Your task to perform on an android device: Open the calendar and show me this week's events? Image 0: 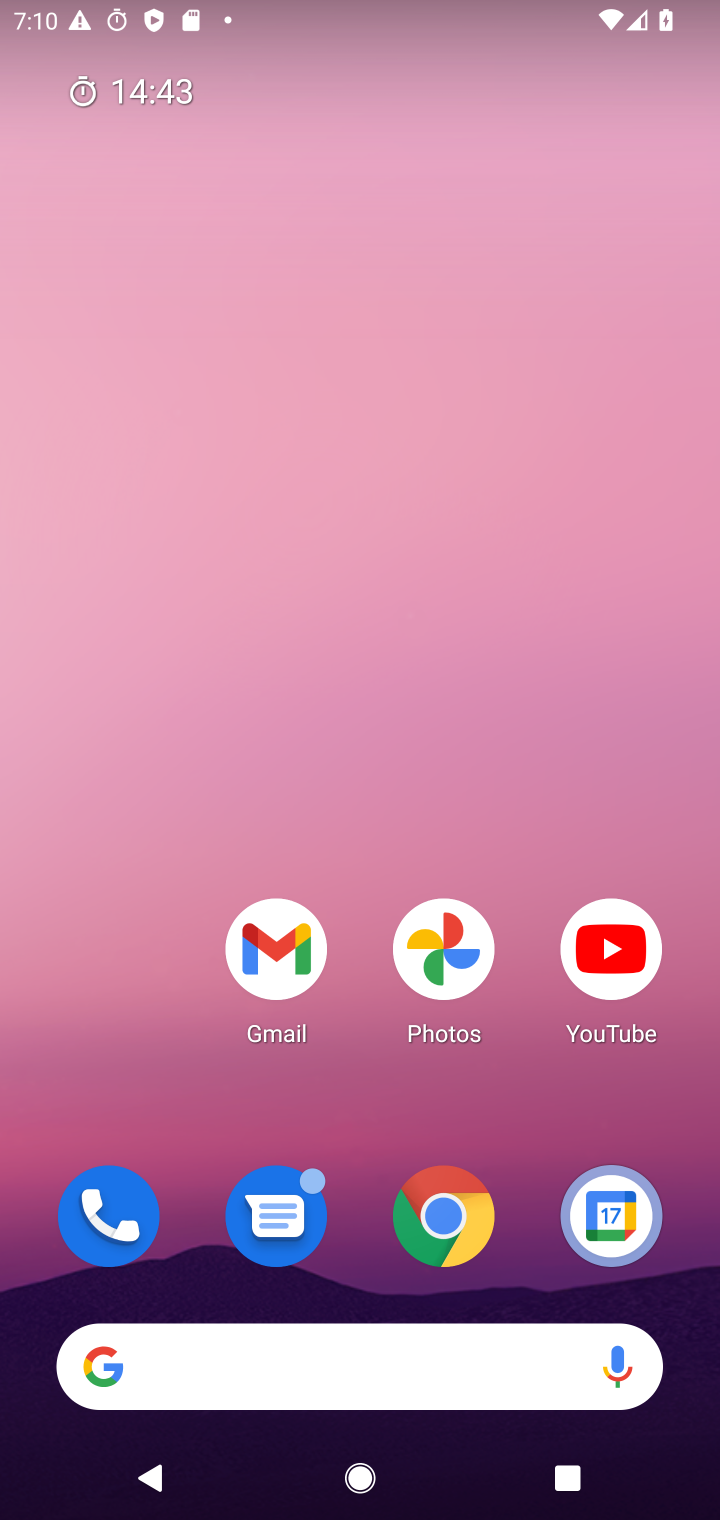
Step 0: drag from (474, 859) to (510, 24)
Your task to perform on an android device: Open the calendar and show me this week's events? Image 1: 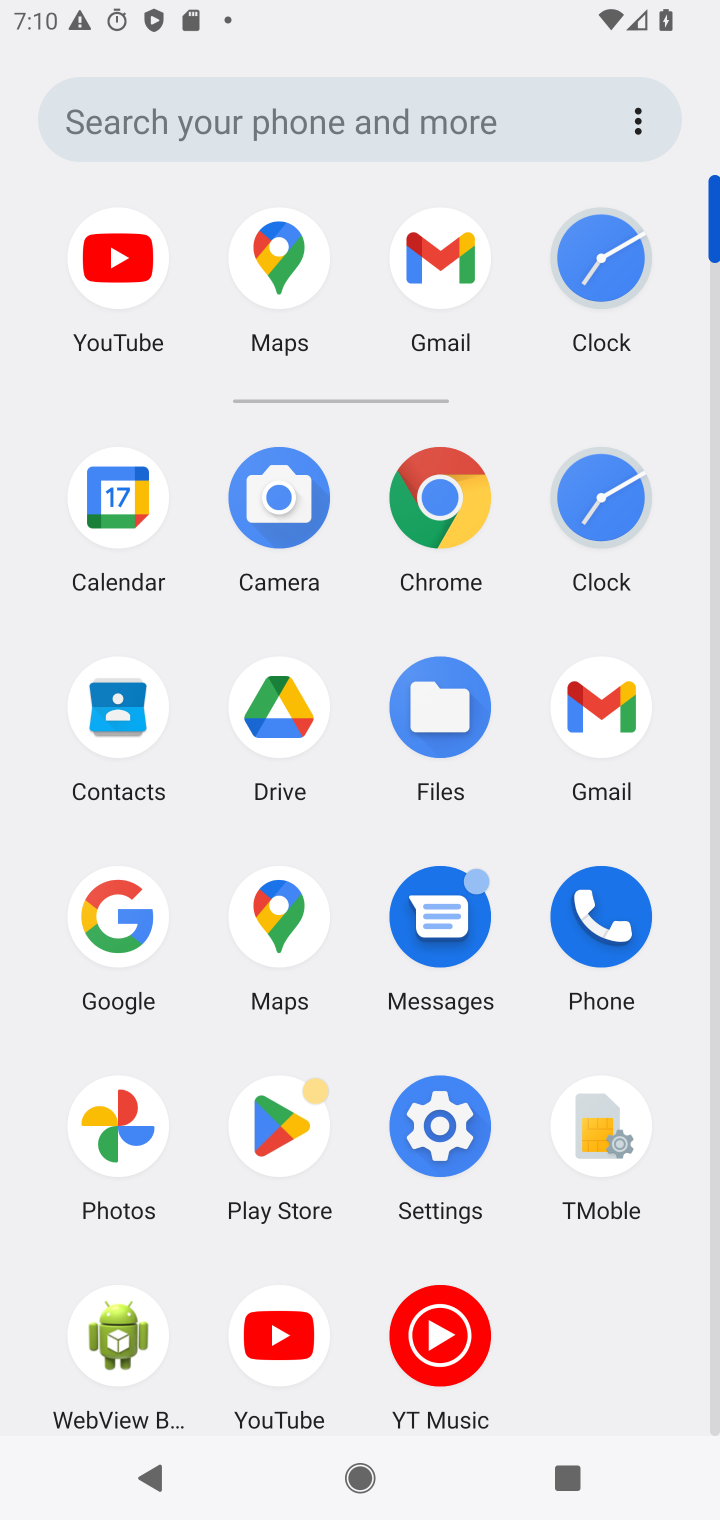
Step 1: click (105, 493)
Your task to perform on an android device: Open the calendar and show me this week's events? Image 2: 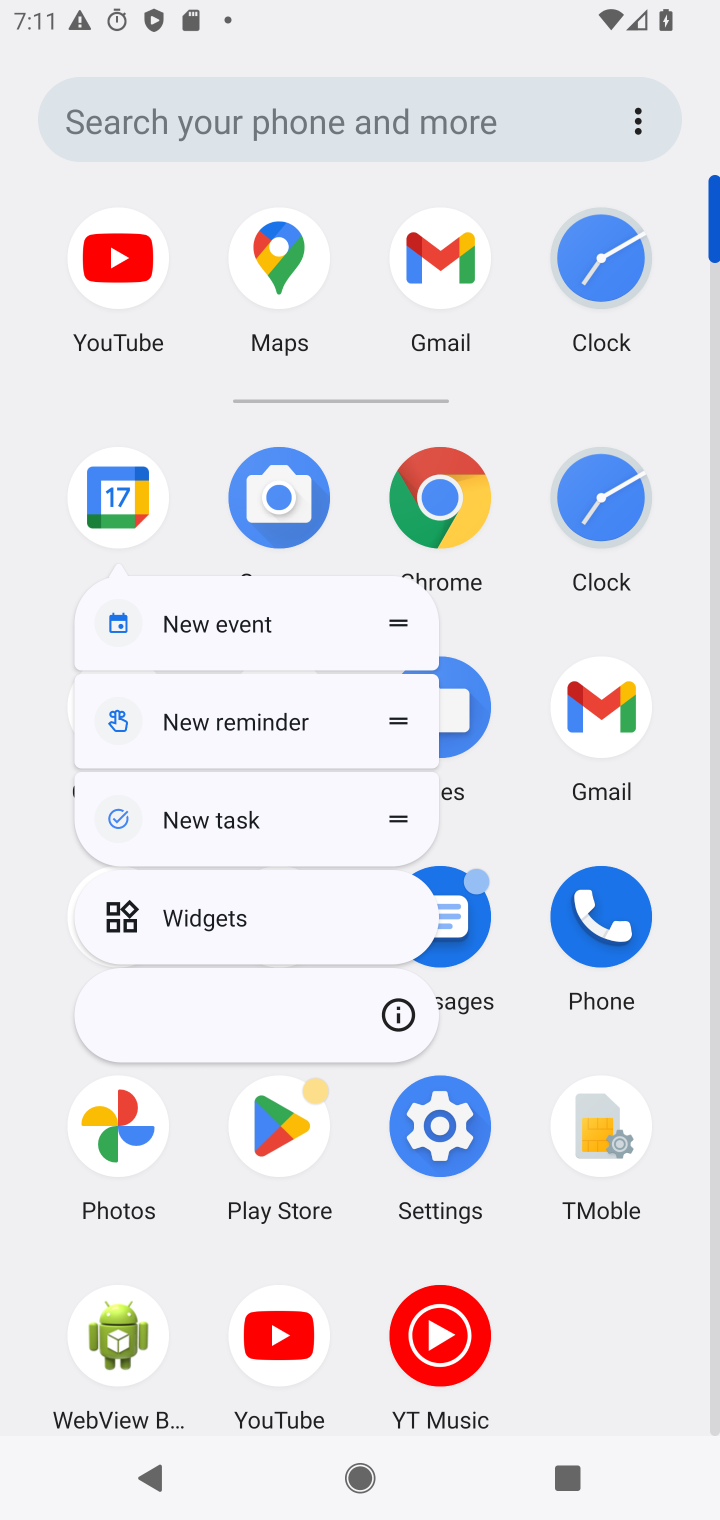
Step 2: click (111, 493)
Your task to perform on an android device: Open the calendar and show me this week's events? Image 3: 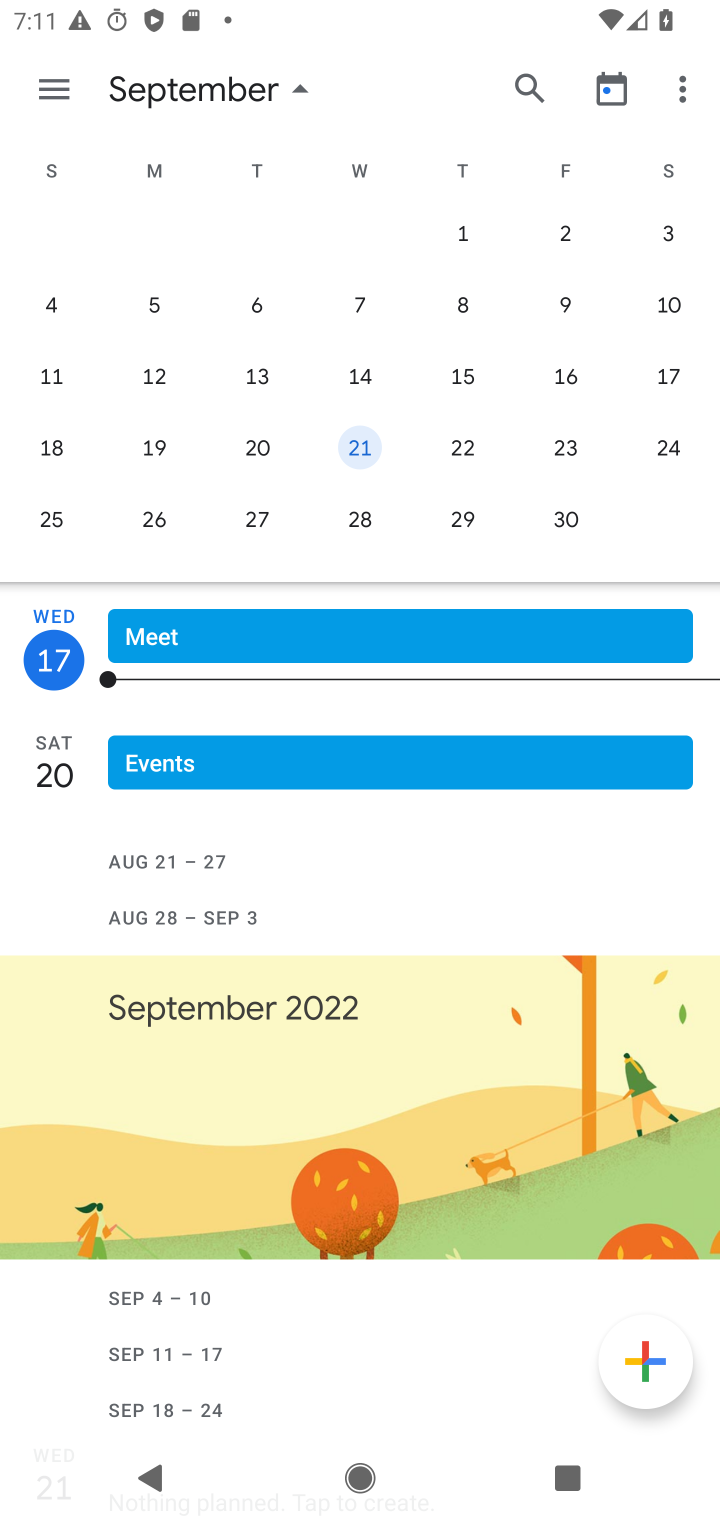
Step 3: drag from (166, 267) to (716, 439)
Your task to perform on an android device: Open the calendar and show me this week's events? Image 4: 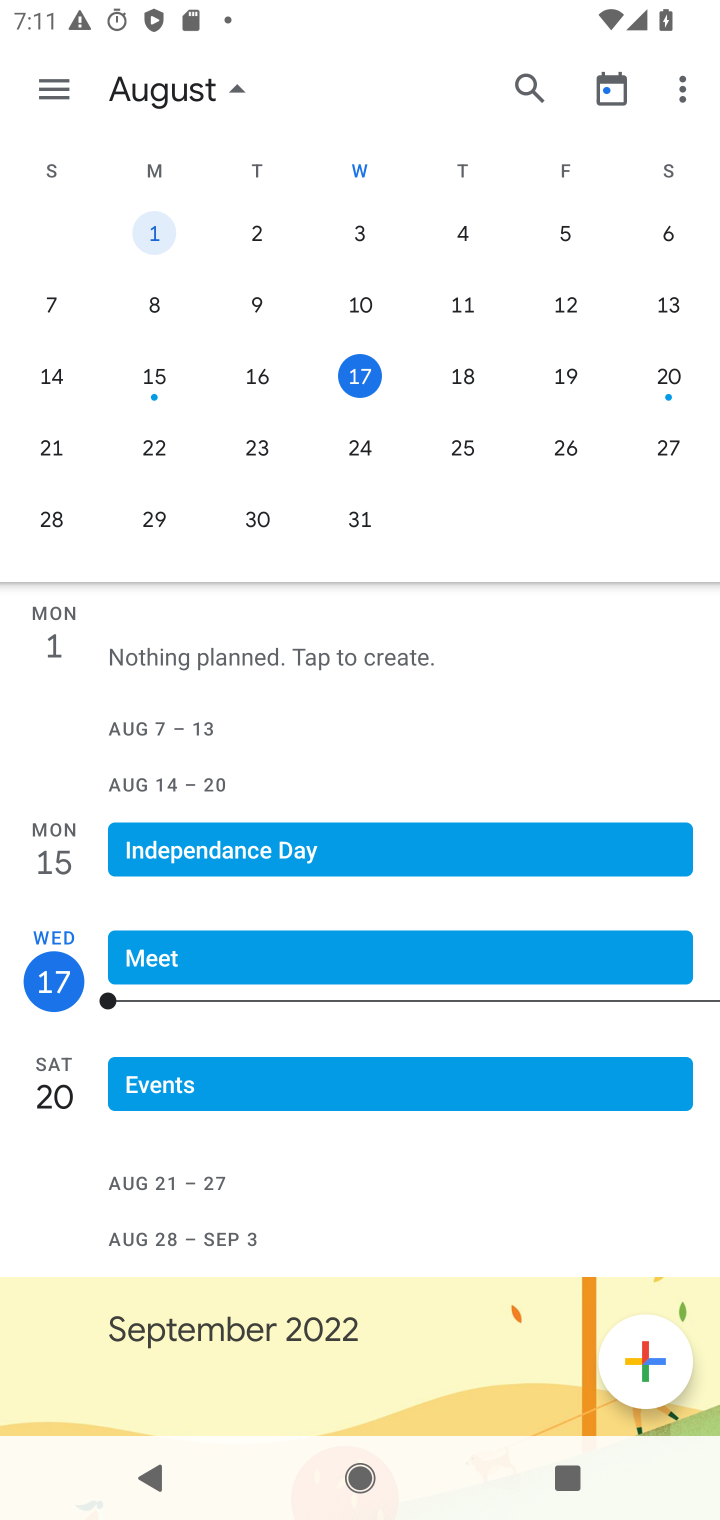
Step 4: click (364, 442)
Your task to perform on an android device: Open the calendar and show me this week's events? Image 5: 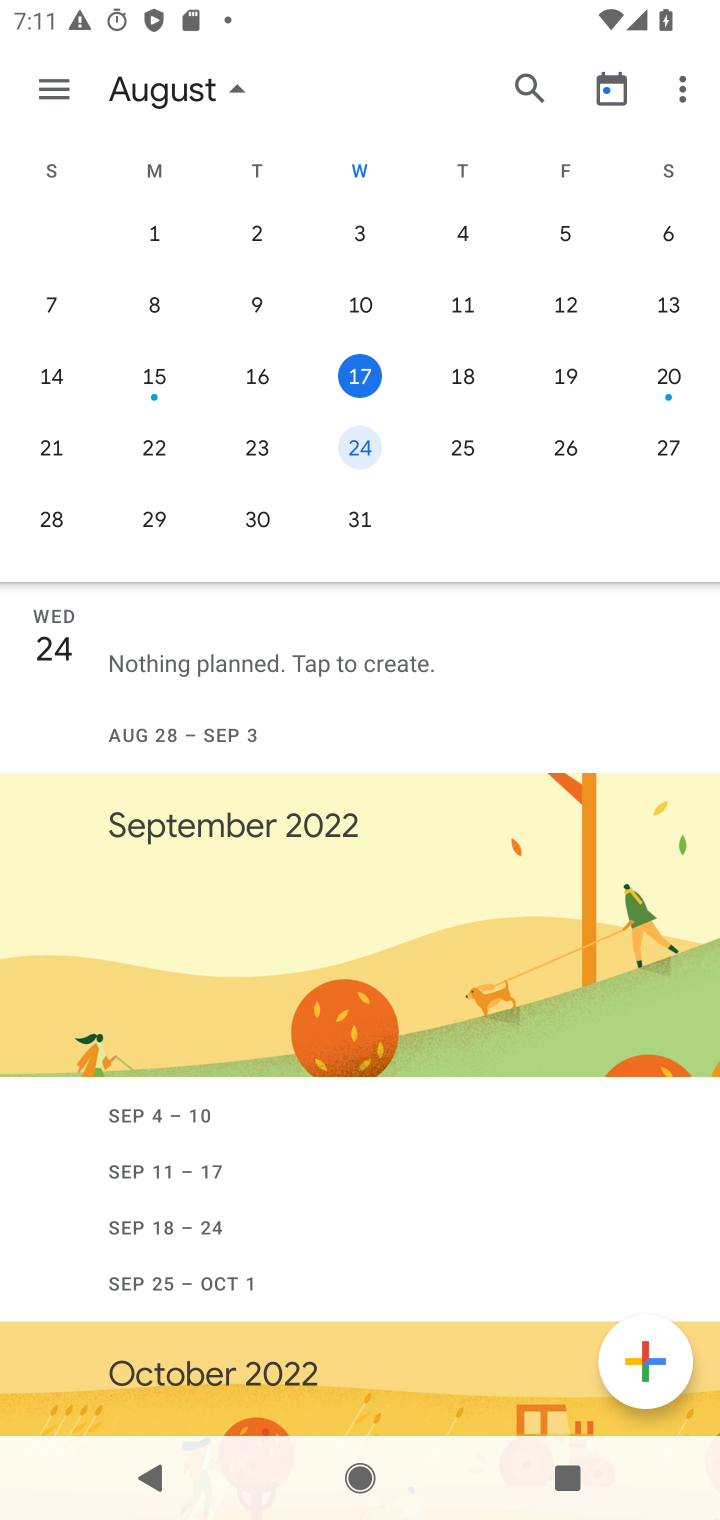
Step 5: task complete